Your task to perform on an android device: stop showing notifications on the lock screen Image 0: 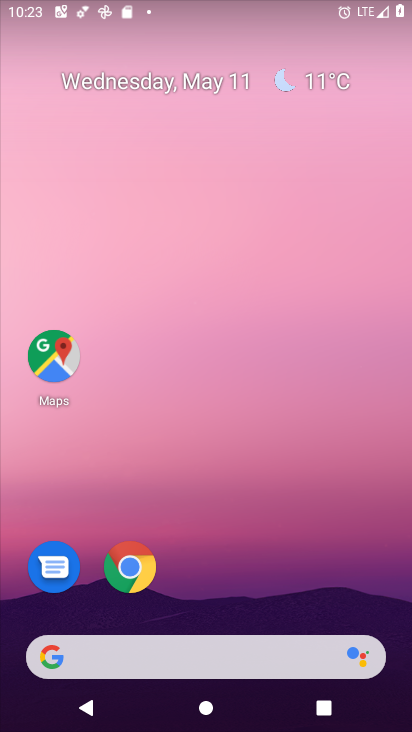
Step 0: drag from (260, 468) to (218, 115)
Your task to perform on an android device: stop showing notifications on the lock screen Image 1: 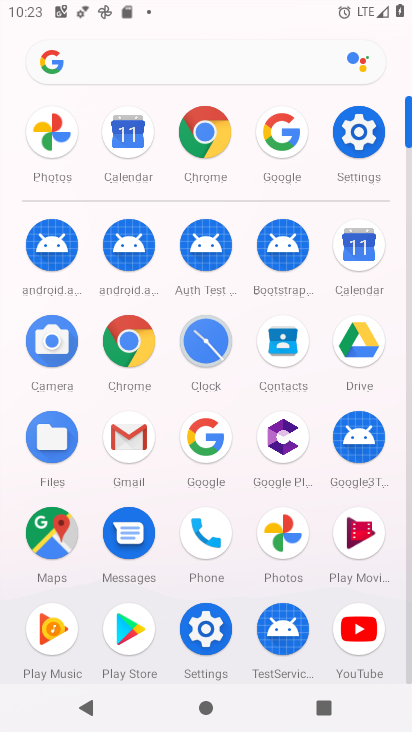
Step 1: click (348, 138)
Your task to perform on an android device: stop showing notifications on the lock screen Image 2: 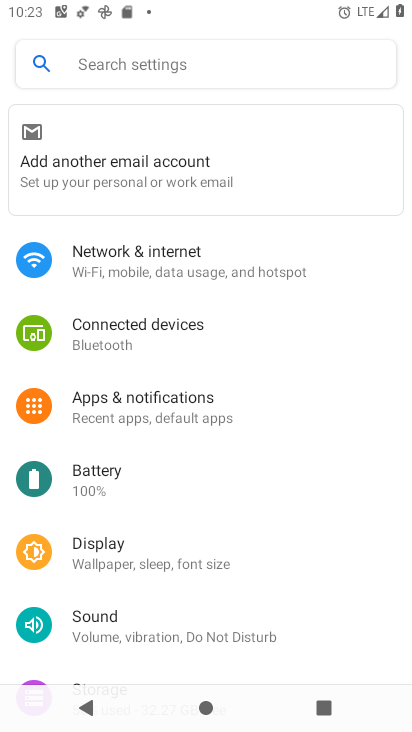
Step 2: click (153, 401)
Your task to perform on an android device: stop showing notifications on the lock screen Image 3: 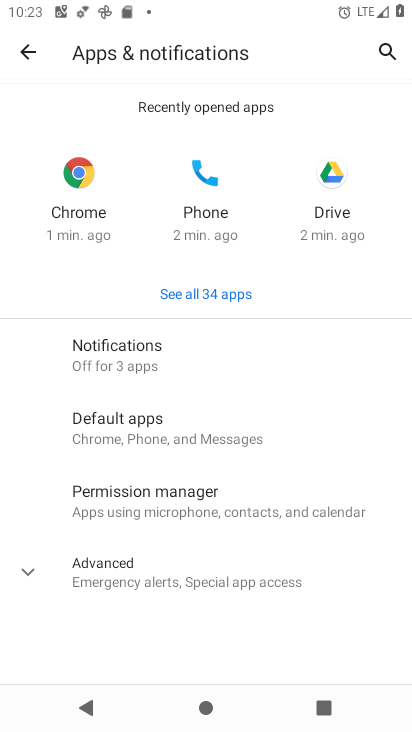
Step 3: click (214, 357)
Your task to perform on an android device: stop showing notifications on the lock screen Image 4: 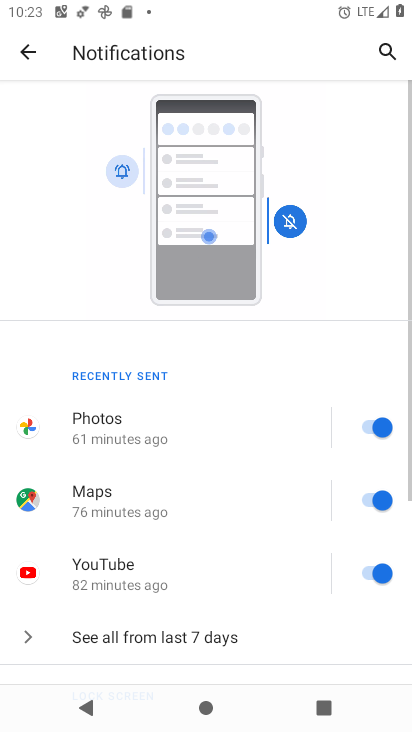
Step 4: drag from (217, 597) to (248, 227)
Your task to perform on an android device: stop showing notifications on the lock screen Image 5: 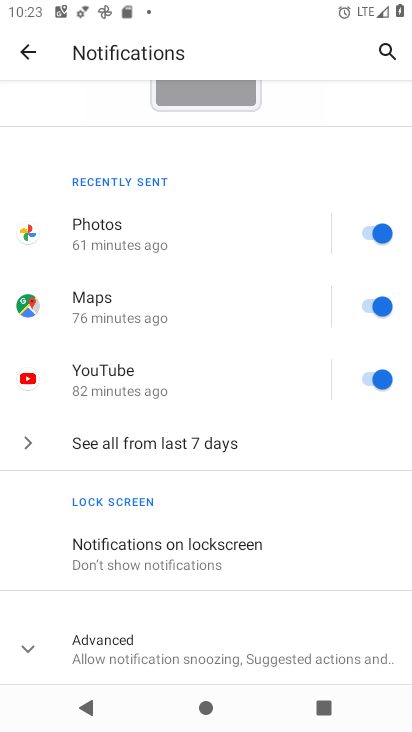
Step 5: click (188, 548)
Your task to perform on an android device: stop showing notifications on the lock screen Image 6: 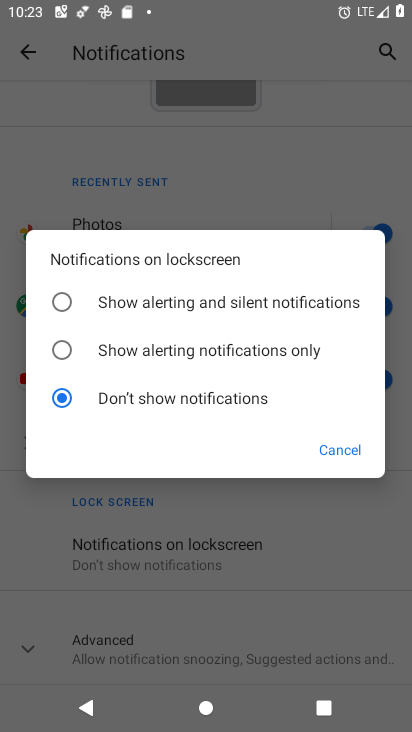
Step 6: task complete